Your task to perform on an android device: open sync settings in chrome Image 0: 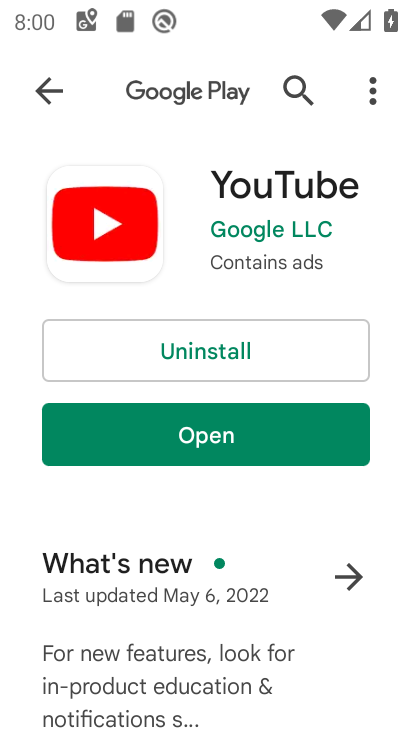
Step 0: press home button
Your task to perform on an android device: open sync settings in chrome Image 1: 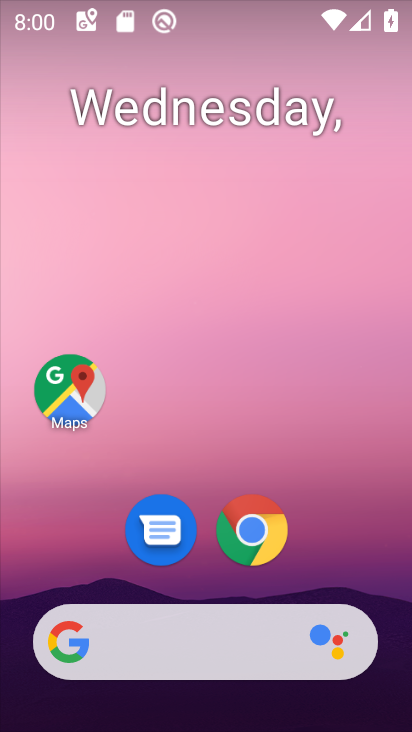
Step 1: drag from (371, 654) to (317, 63)
Your task to perform on an android device: open sync settings in chrome Image 2: 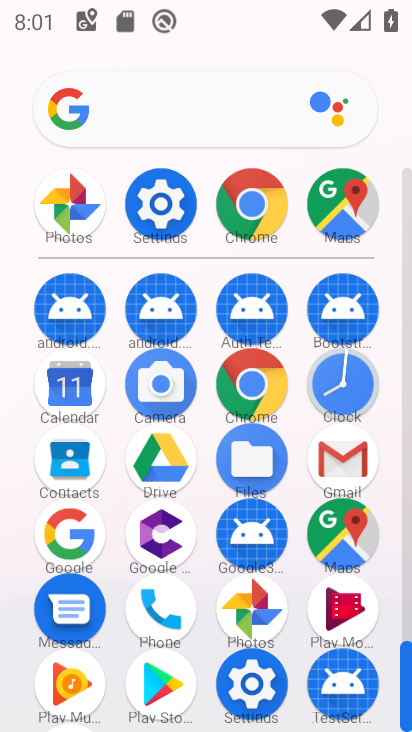
Step 2: click (249, 226)
Your task to perform on an android device: open sync settings in chrome Image 3: 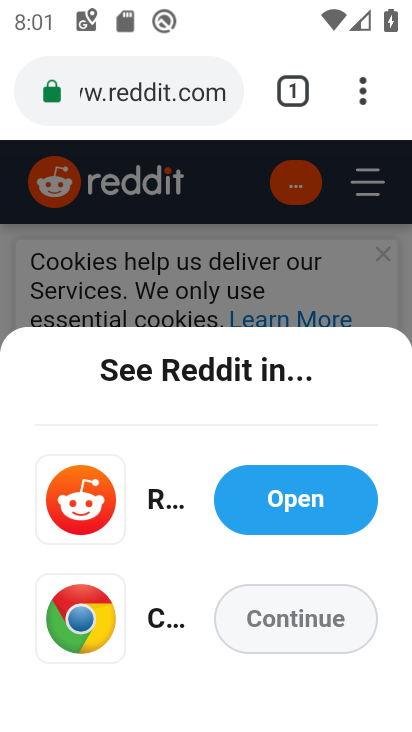
Step 3: press back button
Your task to perform on an android device: open sync settings in chrome Image 4: 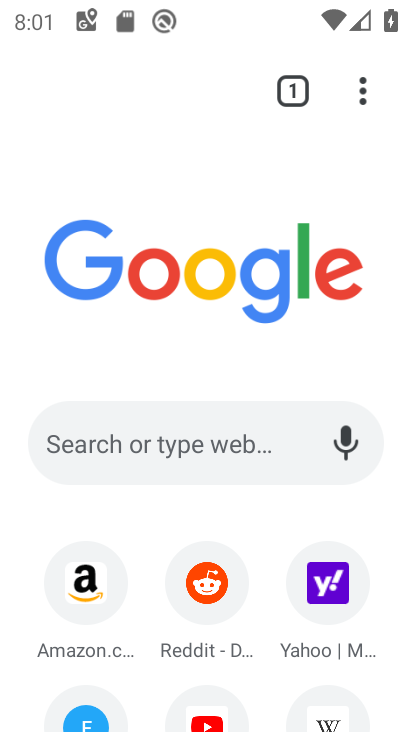
Step 4: click (365, 92)
Your task to perform on an android device: open sync settings in chrome Image 5: 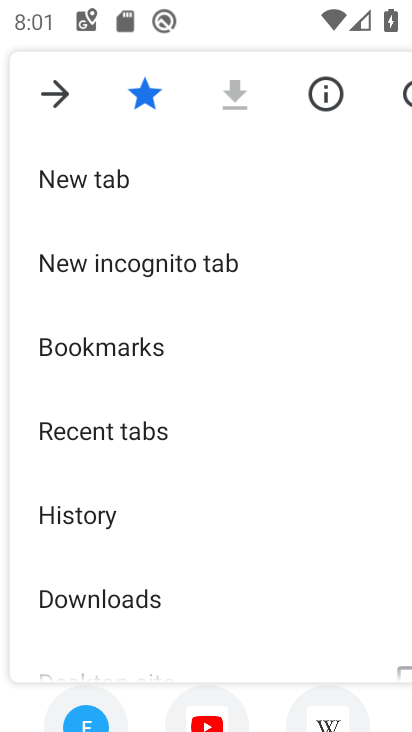
Step 5: drag from (157, 593) to (238, 113)
Your task to perform on an android device: open sync settings in chrome Image 6: 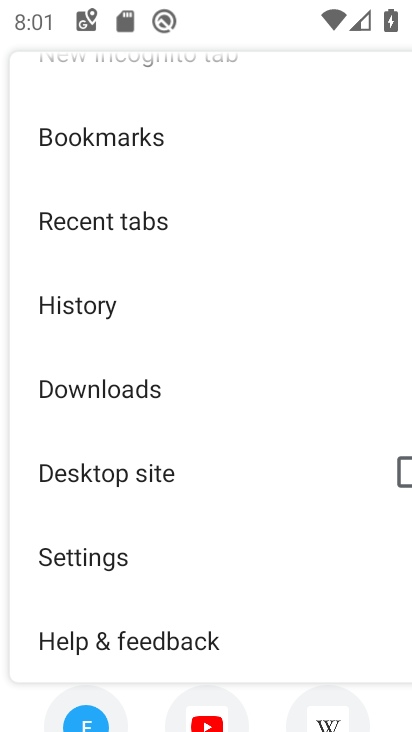
Step 6: click (112, 587)
Your task to perform on an android device: open sync settings in chrome Image 7: 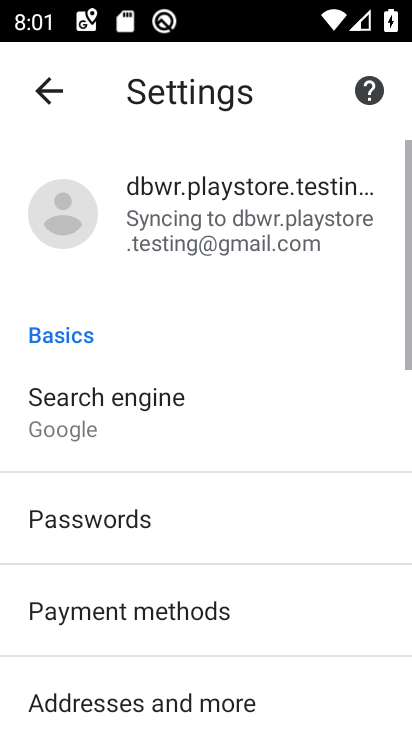
Step 7: drag from (172, 654) to (254, 139)
Your task to perform on an android device: open sync settings in chrome Image 8: 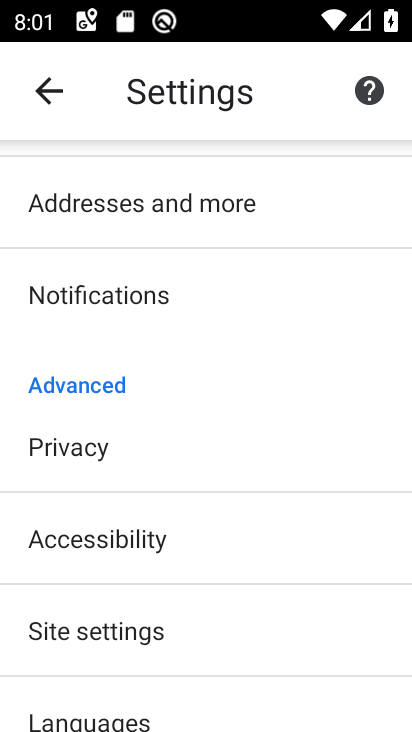
Step 8: click (203, 611)
Your task to perform on an android device: open sync settings in chrome Image 9: 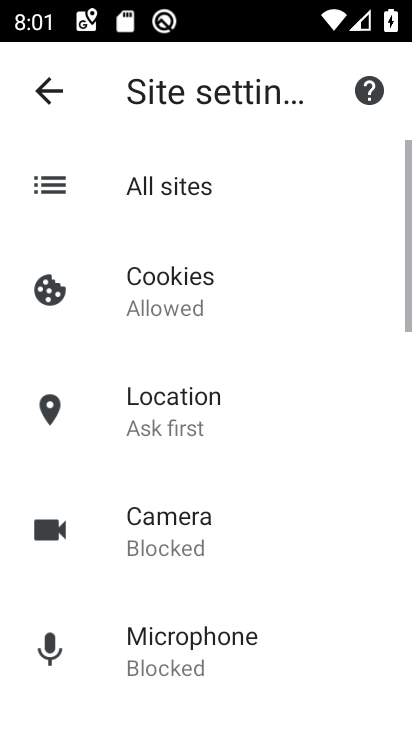
Step 9: drag from (195, 636) to (250, 159)
Your task to perform on an android device: open sync settings in chrome Image 10: 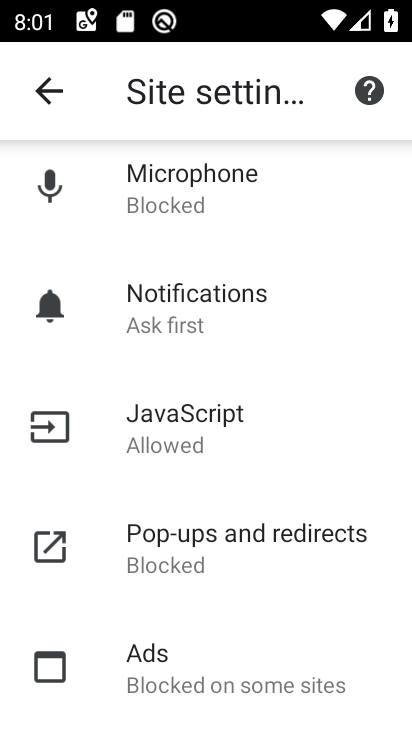
Step 10: drag from (205, 553) to (225, 628)
Your task to perform on an android device: open sync settings in chrome Image 11: 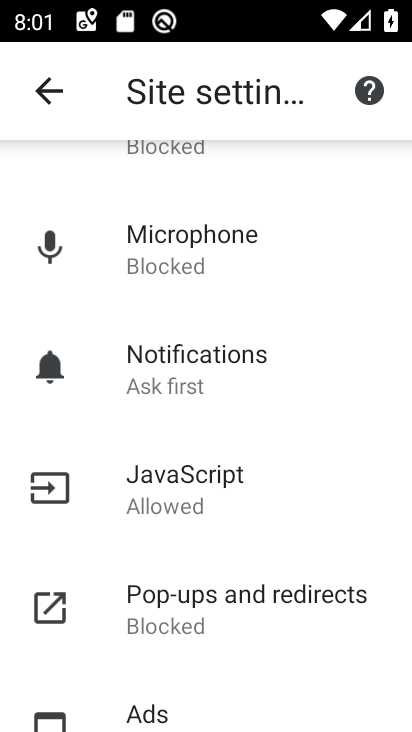
Step 11: drag from (225, 628) to (272, 187)
Your task to perform on an android device: open sync settings in chrome Image 12: 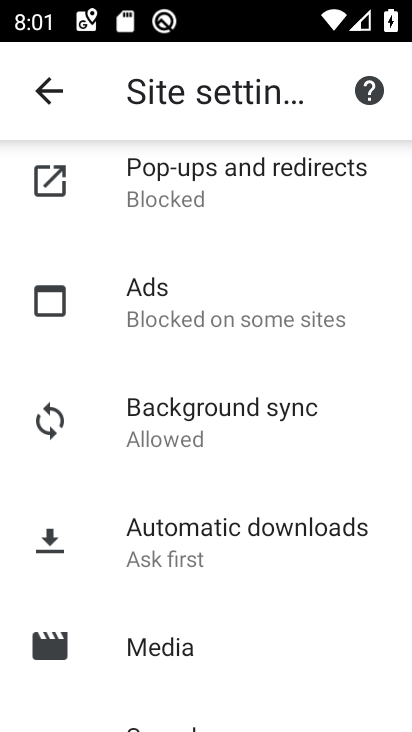
Step 12: click (262, 388)
Your task to perform on an android device: open sync settings in chrome Image 13: 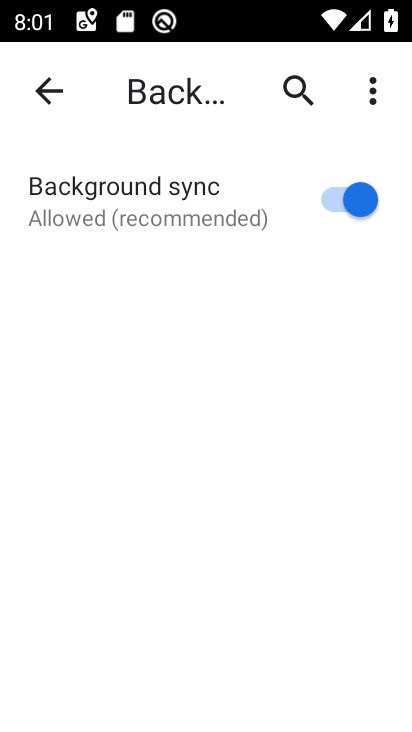
Step 13: task complete